Your task to perform on an android device: delete the emails in spam in the gmail app Image 0: 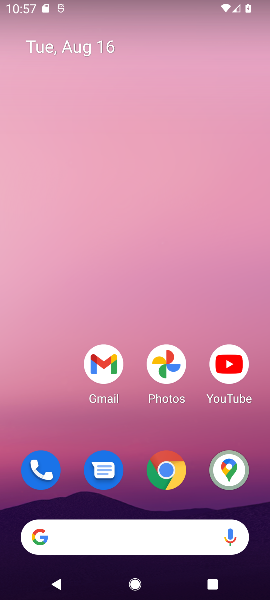
Step 0: click (108, 361)
Your task to perform on an android device: delete the emails in spam in the gmail app Image 1: 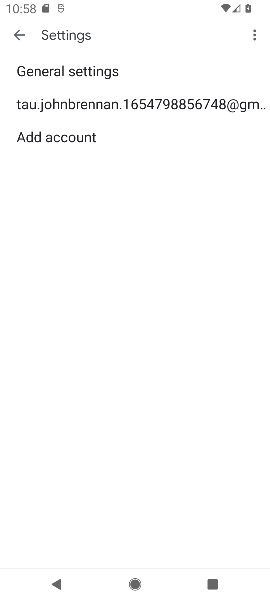
Step 1: click (19, 32)
Your task to perform on an android device: delete the emails in spam in the gmail app Image 2: 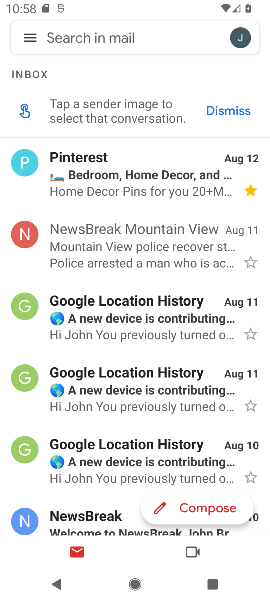
Step 2: click (28, 33)
Your task to perform on an android device: delete the emails in spam in the gmail app Image 3: 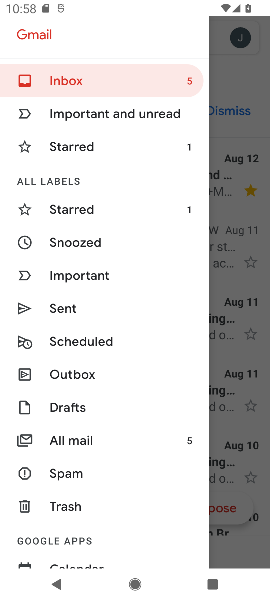
Step 3: click (61, 471)
Your task to perform on an android device: delete the emails in spam in the gmail app Image 4: 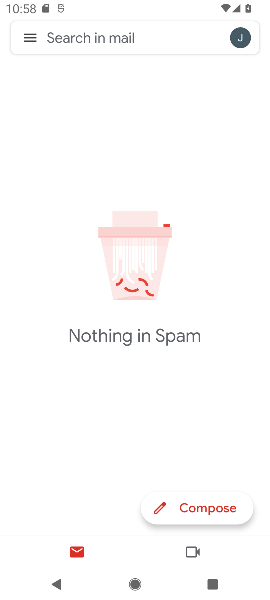
Step 4: task complete